Your task to perform on an android device: Search for sushi restaurants on Maps Image 0: 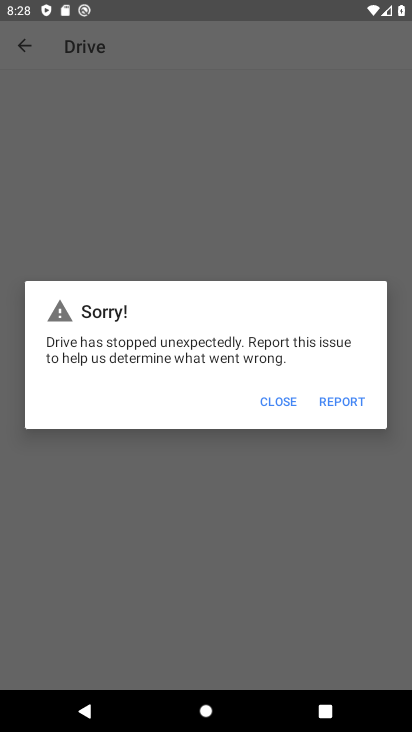
Step 0: press home button
Your task to perform on an android device: Search for sushi restaurants on Maps Image 1: 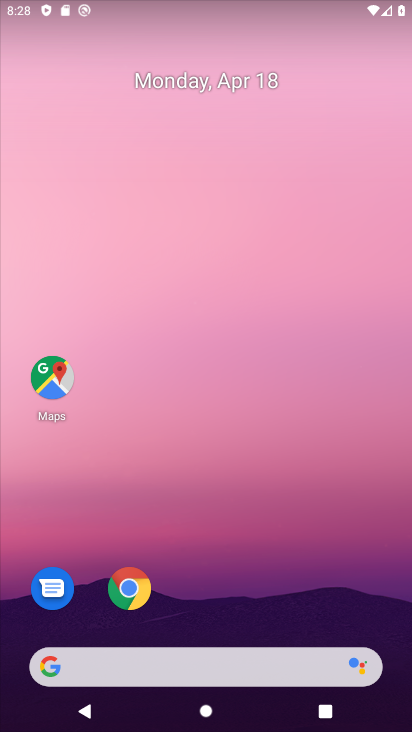
Step 1: click (49, 379)
Your task to perform on an android device: Search for sushi restaurants on Maps Image 2: 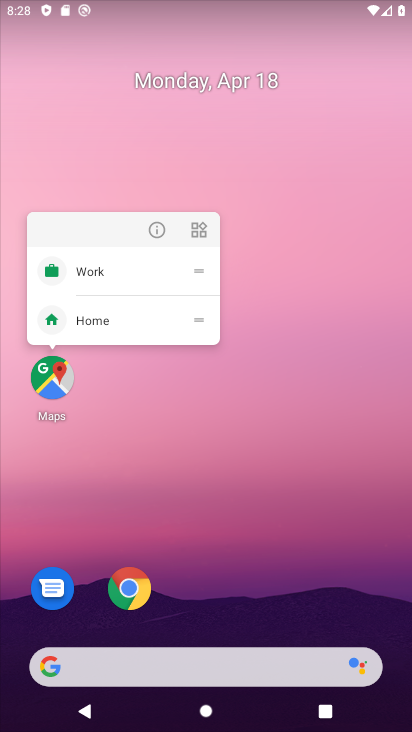
Step 2: click (49, 378)
Your task to perform on an android device: Search for sushi restaurants on Maps Image 3: 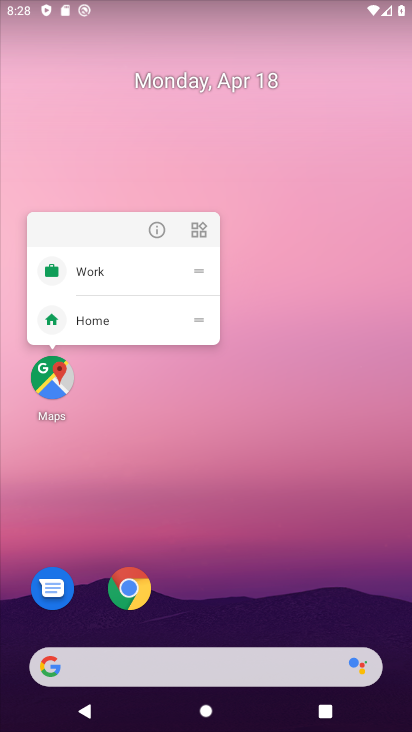
Step 3: click (49, 377)
Your task to perform on an android device: Search for sushi restaurants on Maps Image 4: 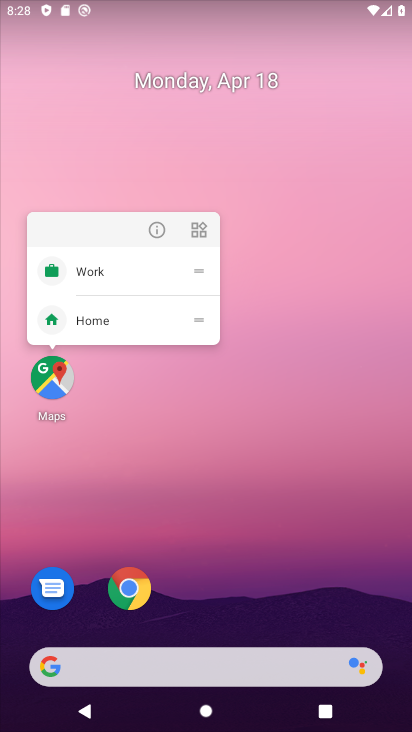
Step 4: click (49, 377)
Your task to perform on an android device: Search for sushi restaurants on Maps Image 5: 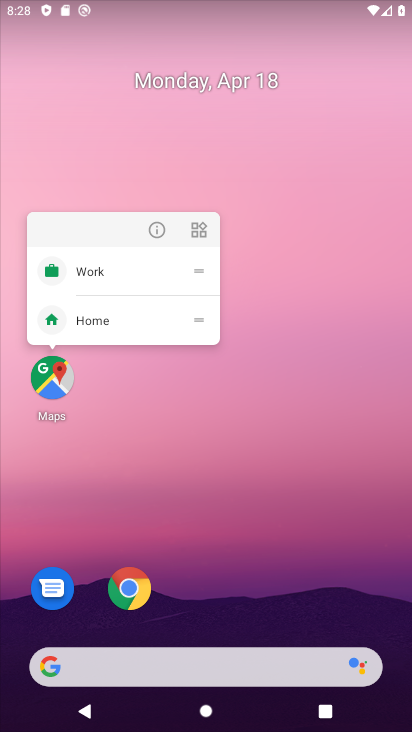
Step 5: click (49, 377)
Your task to perform on an android device: Search for sushi restaurants on Maps Image 6: 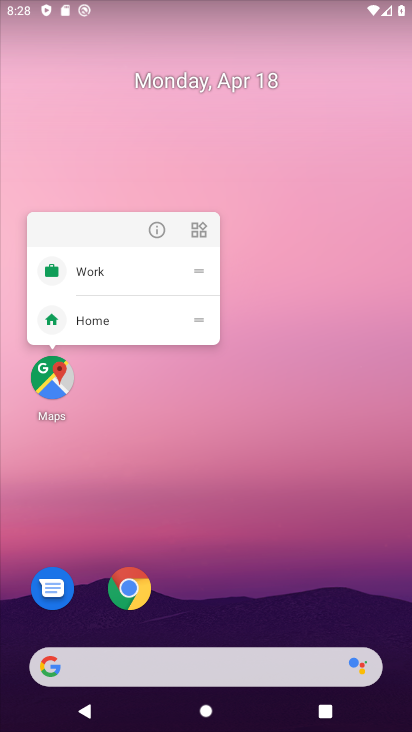
Step 6: click (49, 377)
Your task to perform on an android device: Search for sushi restaurants on Maps Image 7: 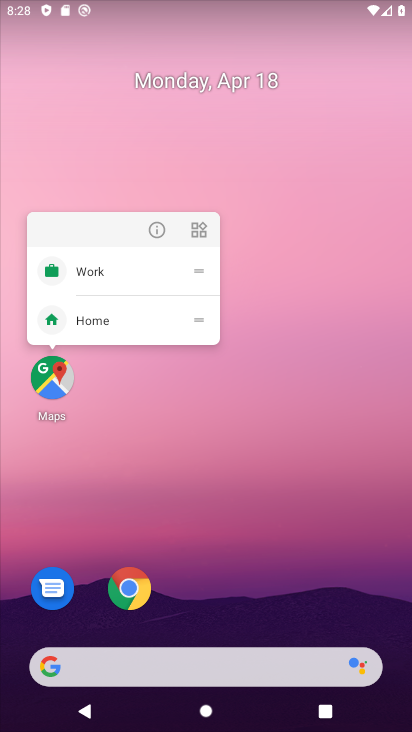
Step 7: click (47, 388)
Your task to perform on an android device: Search for sushi restaurants on Maps Image 8: 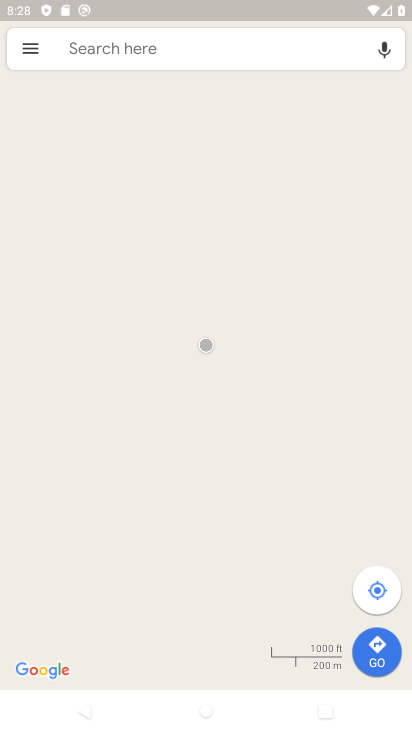
Step 8: click (179, 57)
Your task to perform on an android device: Search for sushi restaurants on Maps Image 9: 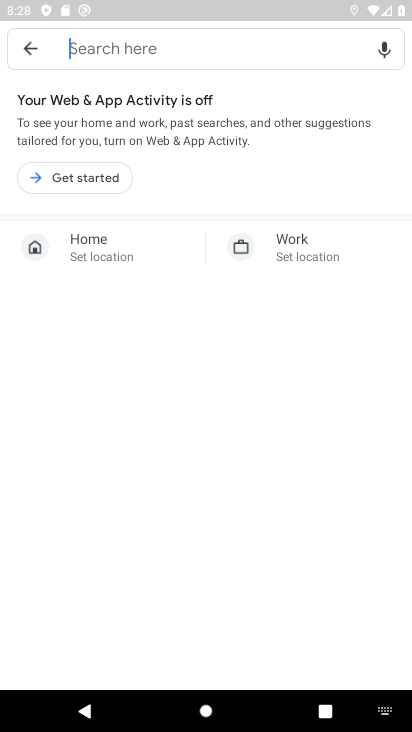
Step 9: click (97, 204)
Your task to perform on an android device: Search for sushi restaurants on Maps Image 10: 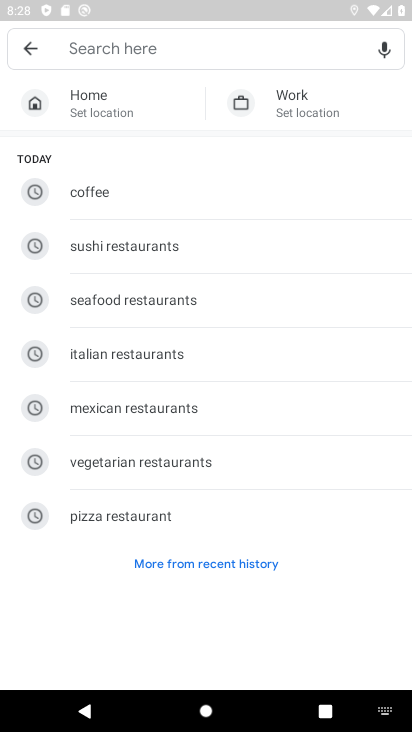
Step 10: click (206, 262)
Your task to perform on an android device: Search for sushi restaurants on Maps Image 11: 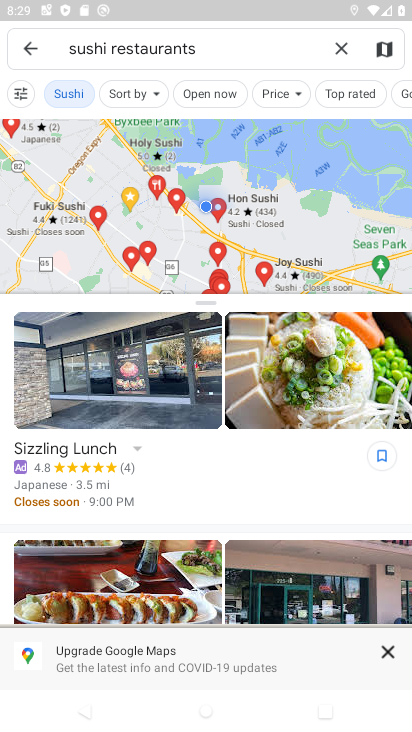
Step 11: task complete